Your task to perform on an android device: turn off airplane mode Image 0: 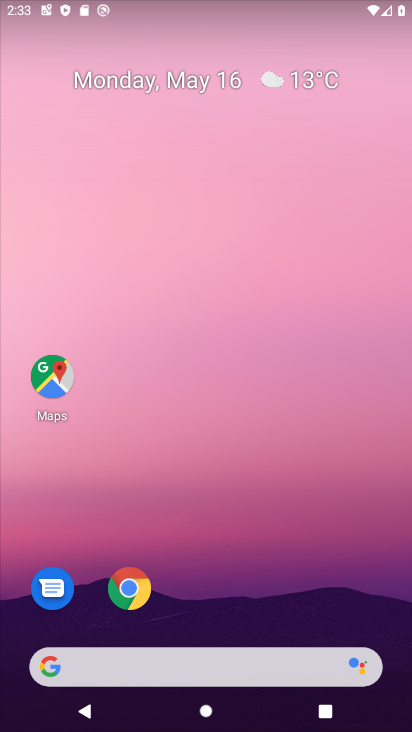
Step 0: drag from (298, 707) to (240, 20)
Your task to perform on an android device: turn off airplane mode Image 1: 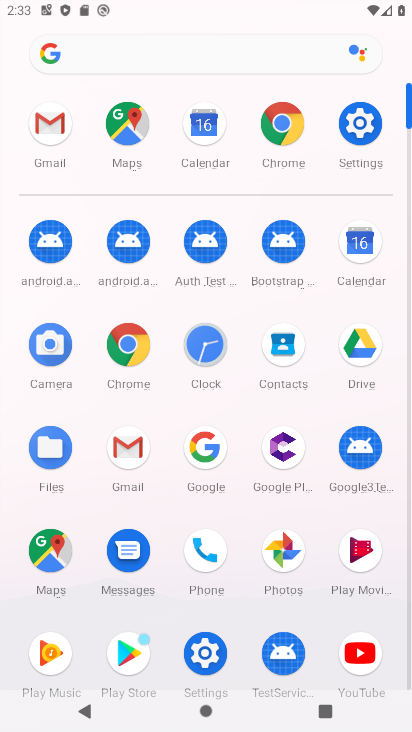
Step 1: click (368, 127)
Your task to perform on an android device: turn off airplane mode Image 2: 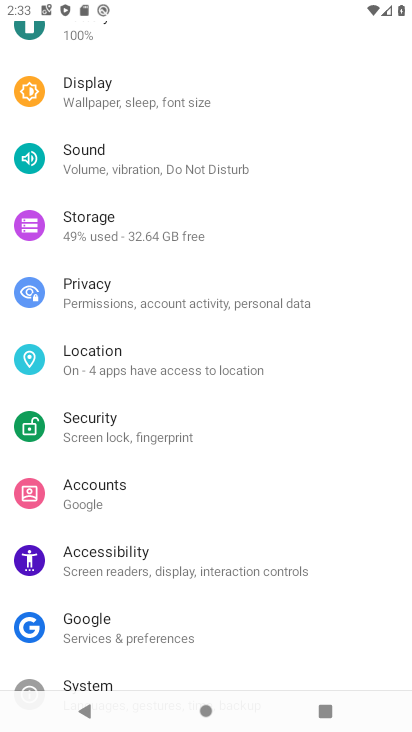
Step 2: drag from (220, 221) to (227, 711)
Your task to perform on an android device: turn off airplane mode Image 3: 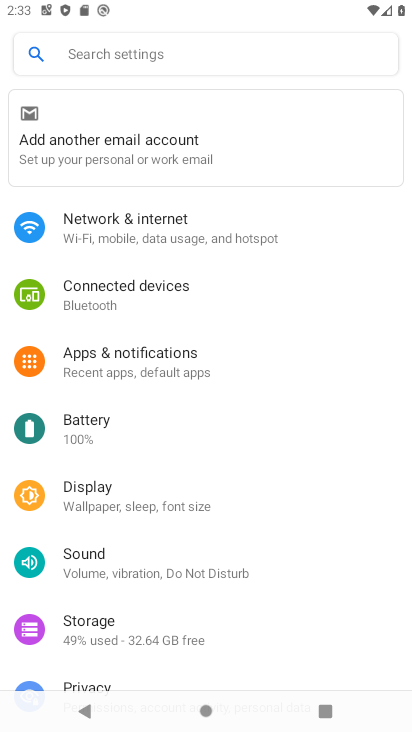
Step 3: click (139, 227)
Your task to perform on an android device: turn off airplane mode Image 4: 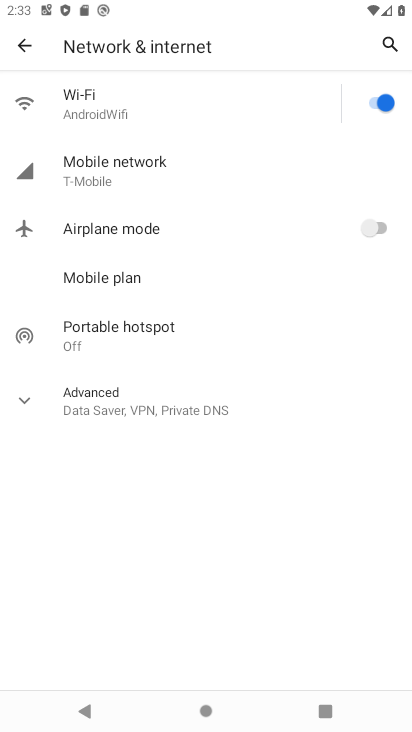
Step 4: task complete